Your task to perform on an android device: read, delete, or share a saved page in the chrome app Image 0: 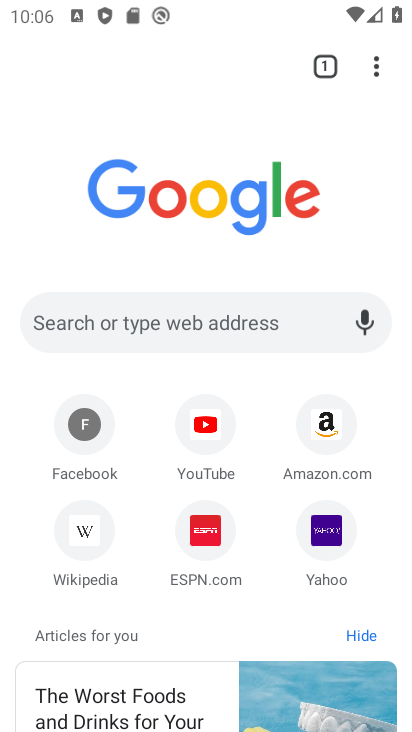
Step 0: click (377, 75)
Your task to perform on an android device: read, delete, or share a saved page in the chrome app Image 1: 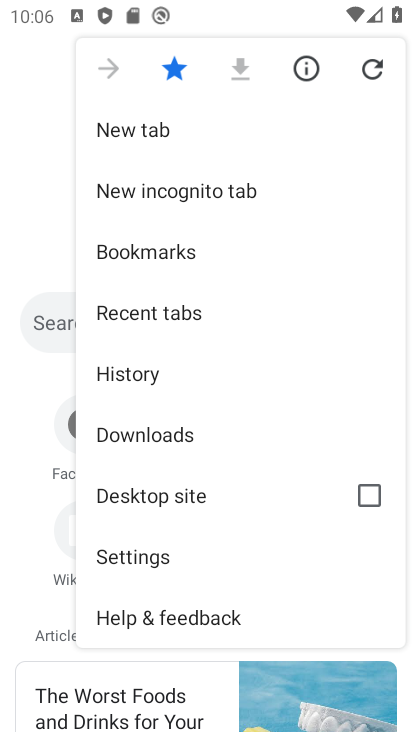
Step 1: click (143, 556)
Your task to perform on an android device: read, delete, or share a saved page in the chrome app Image 2: 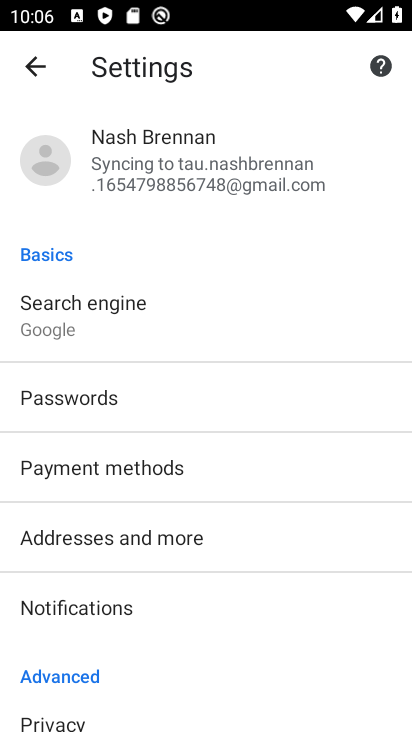
Step 2: click (35, 62)
Your task to perform on an android device: read, delete, or share a saved page in the chrome app Image 3: 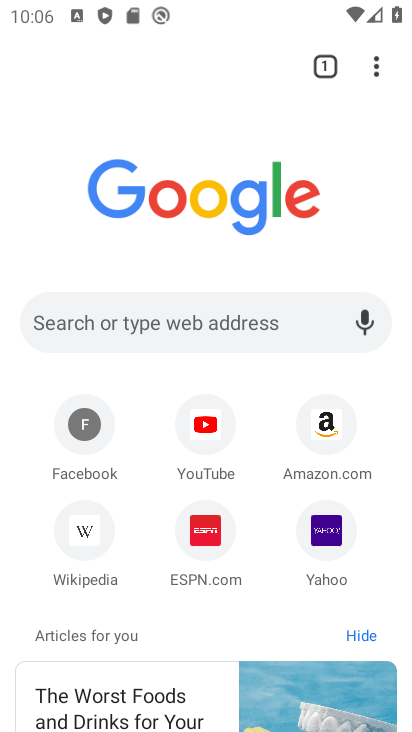
Step 3: click (369, 59)
Your task to perform on an android device: read, delete, or share a saved page in the chrome app Image 4: 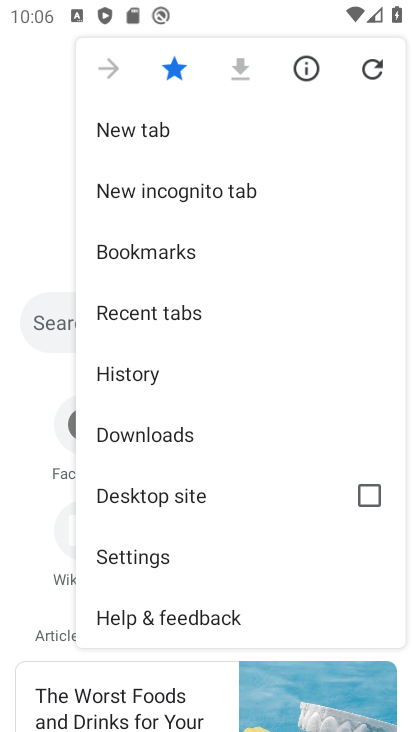
Step 4: click (172, 434)
Your task to perform on an android device: read, delete, or share a saved page in the chrome app Image 5: 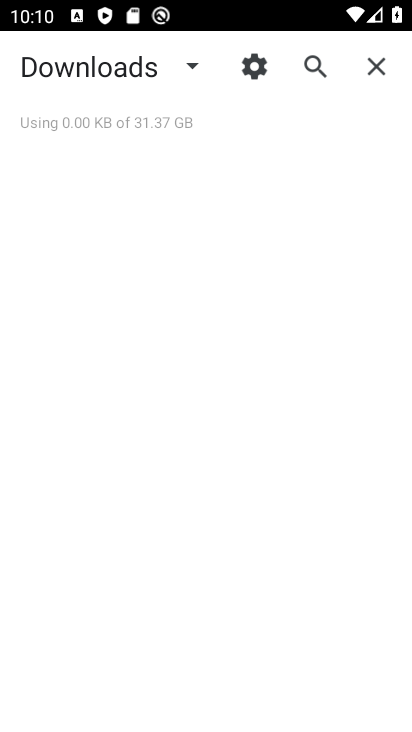
Step 5: task complete